Your task to perform on an android device: Go to Android settings Image 0: 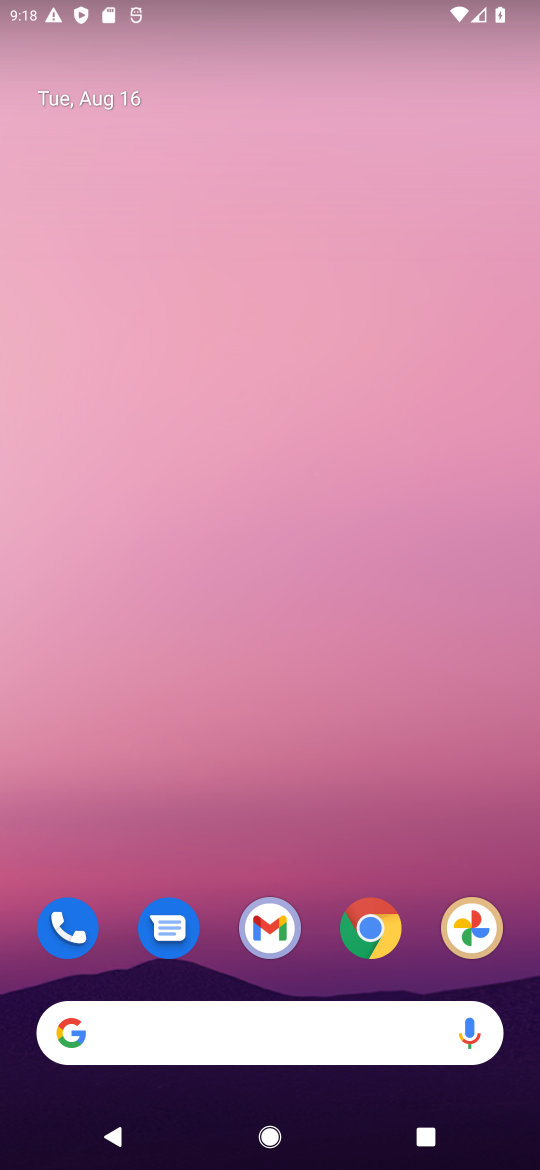
Step 0: press home button
Your task to perform on an android device: Go to Android settings Image 1: 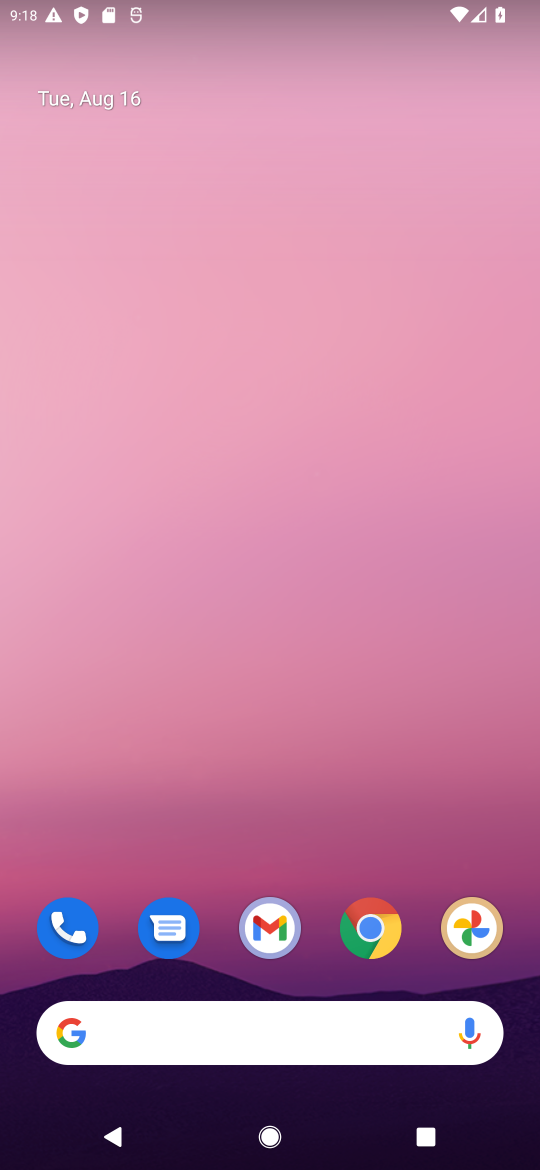
Step 1: drag from (323, 869) to (344, 90)
Your task to perform on an android device: Go to Android settings Image 2: 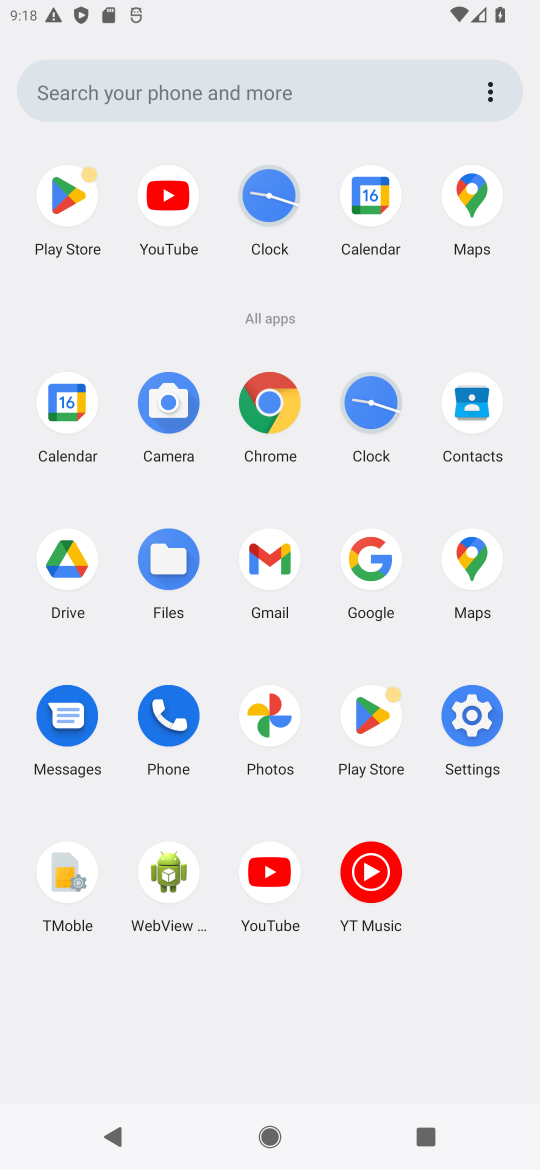
Step 2: click (472, 710)
Your task to perform on an android device: Go to Android settings Image 3: 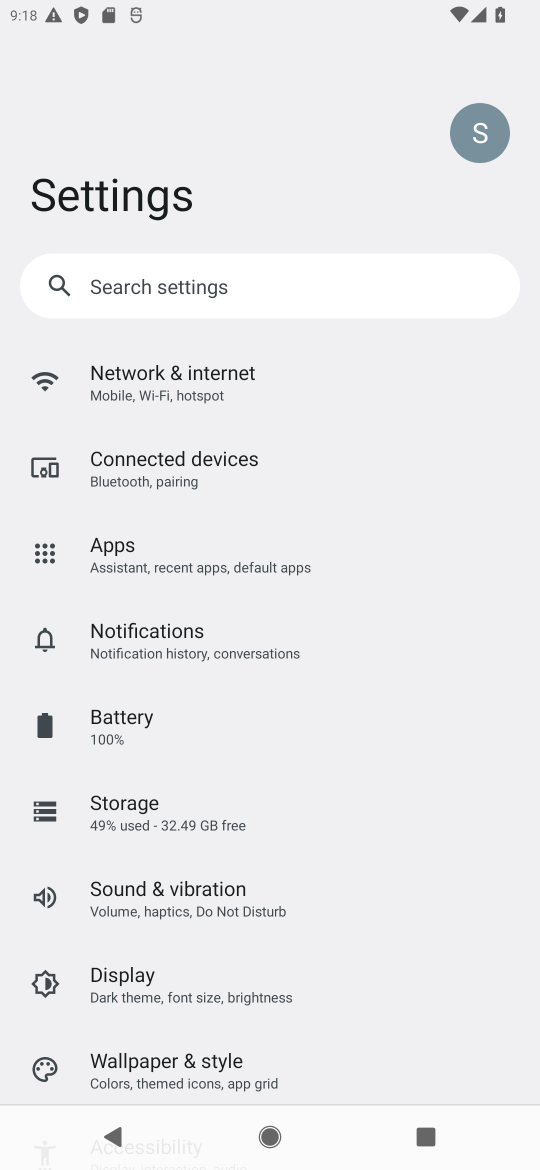
Step 3: task complete